Your task to perform on an android device: Go to Wikipedia Image 0: 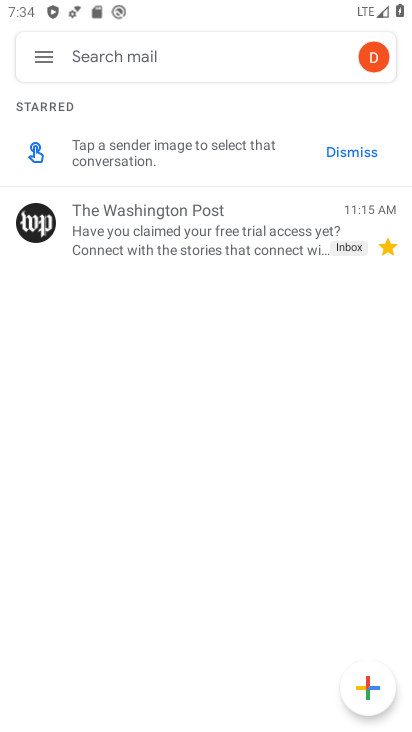
Step 0: press home button
Your task to perform on an android device: Go to Wikipedia Image 1: 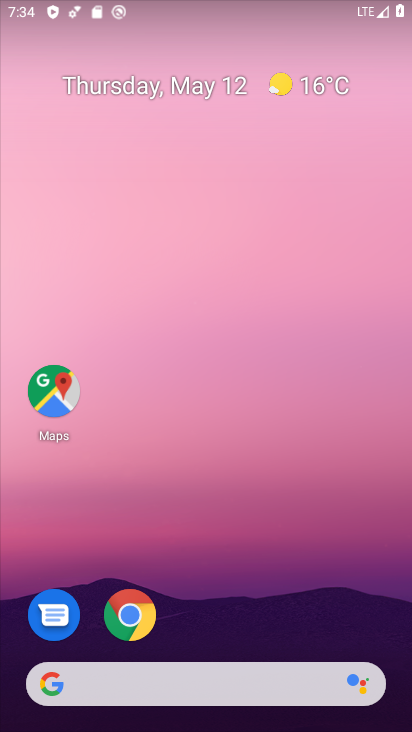
Step 1: click (134, 595)
Your task to perform on an android device: Go to Wikipedia Image 2: 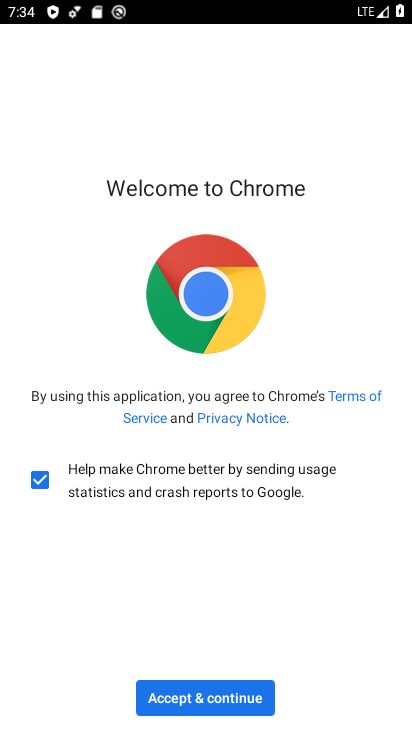
Step 2: click (248, 687)
Your task to perform on an android device: Go to Wikipedia Image 3: 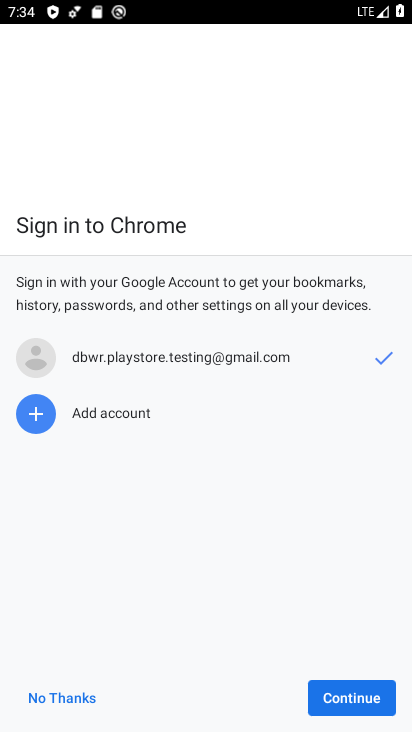
Step 3: click (347, 698)
Your task to perform on an android device: Go to Wikipedia Image 4: 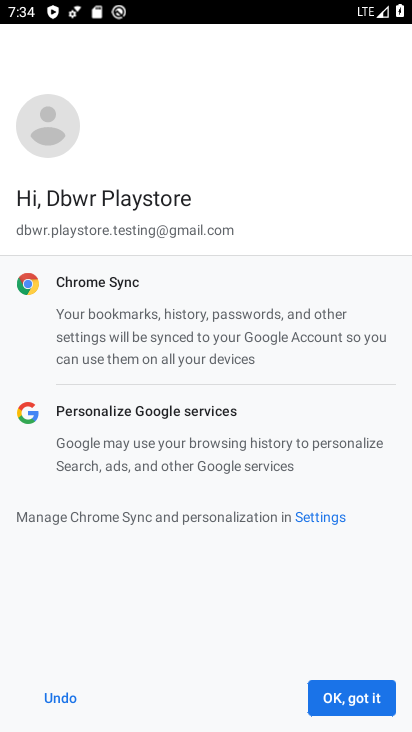
Step 4: click (347, 699)
Your task to perform on an android device: Go to Wikipedia Image 5: 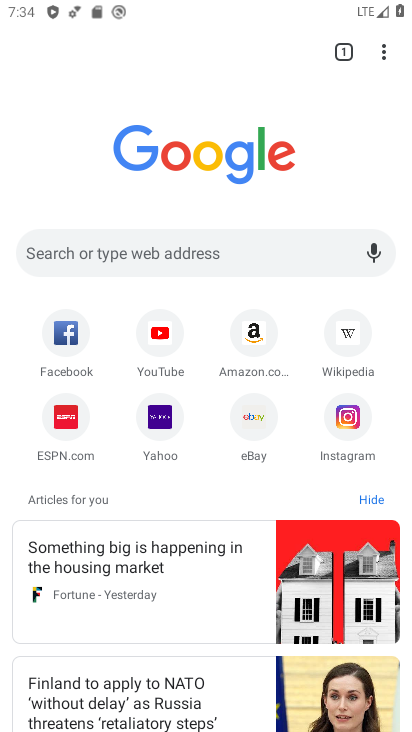
Step 5: click (349, 336)
Your task to perform on an android device: Go to Wikipedia Image 6: 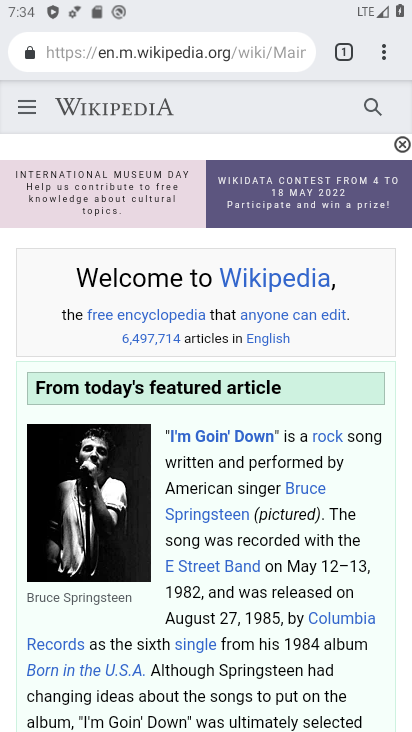
Step 6: task complete